Your task to perform on an android device: turn off airplane mode Image 0: 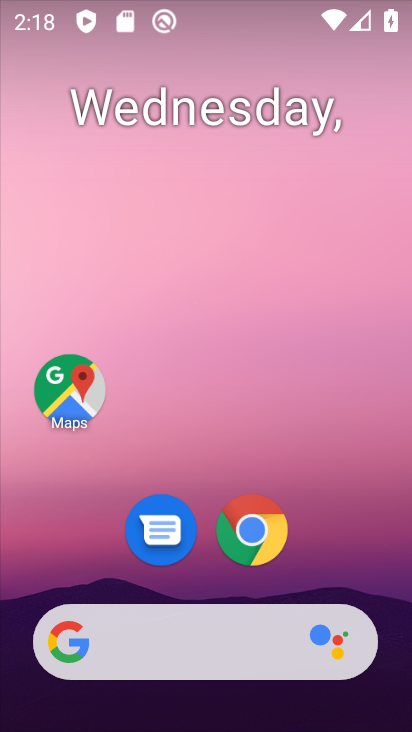
Step 0: drag from (222, 634) to (228, 57)
Your task to perform on an android device: turn off airplane mode Image 1: 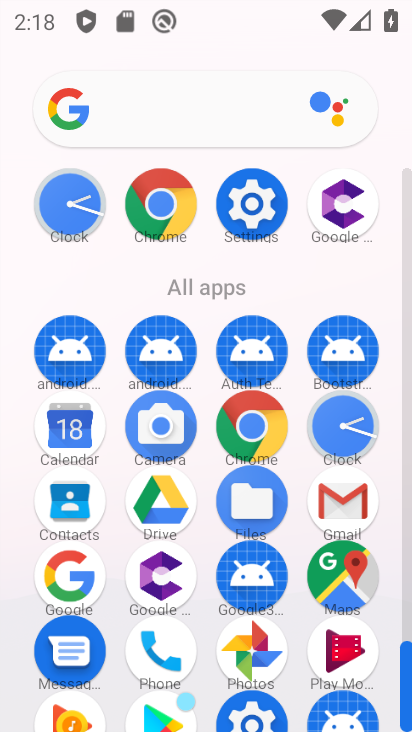
Step 1: click (270, 182)
Your task to perform on an android device: turn off airplane mode Image 2: 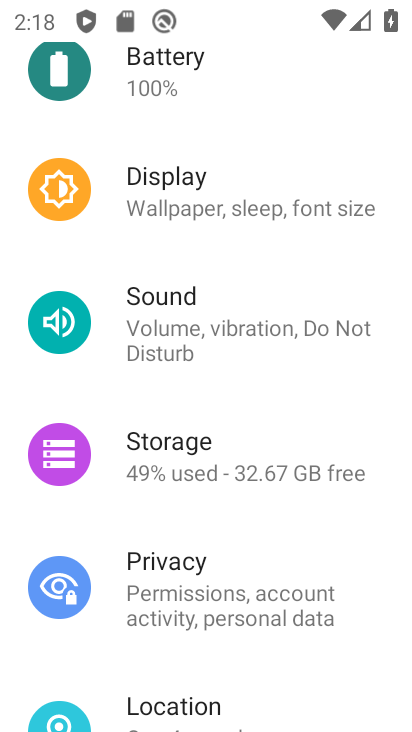
Step 2: drag from (216, 128) to (231, 638)
Your task to perform on an android device: turn off airplane mode Image 3: 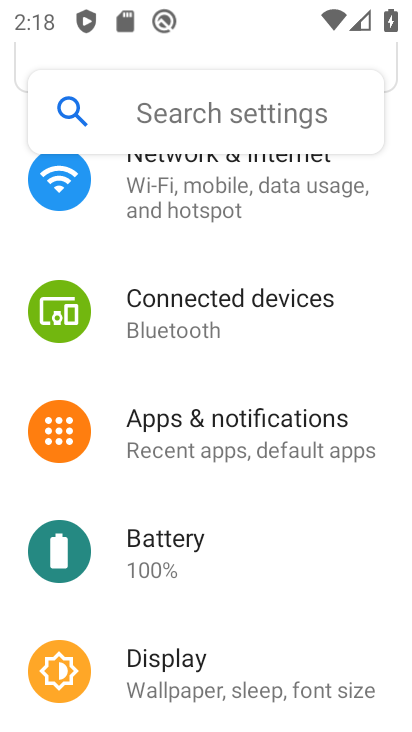
Step 3: drag from (203, 178) to (205, 508)
Your task to perform on an android device: turn off airplane mode Image 4: 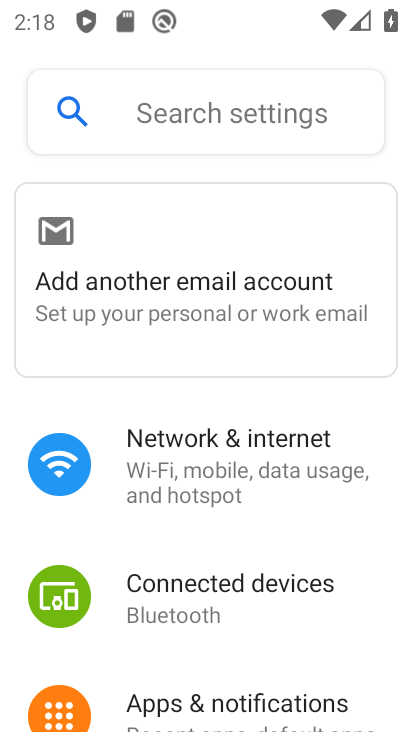
Step 4: click (202, 448)
Your task to perform on an android device: turn off airplane mode Image 5: 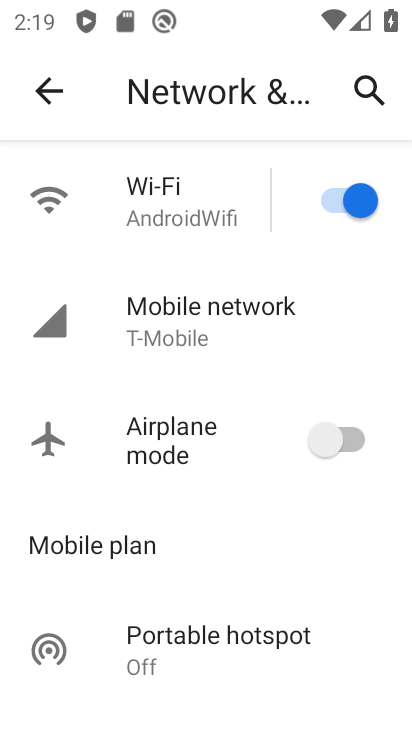
Step 5: task complete